Your task to perform on an android device: Open the stopwatch Image 0: 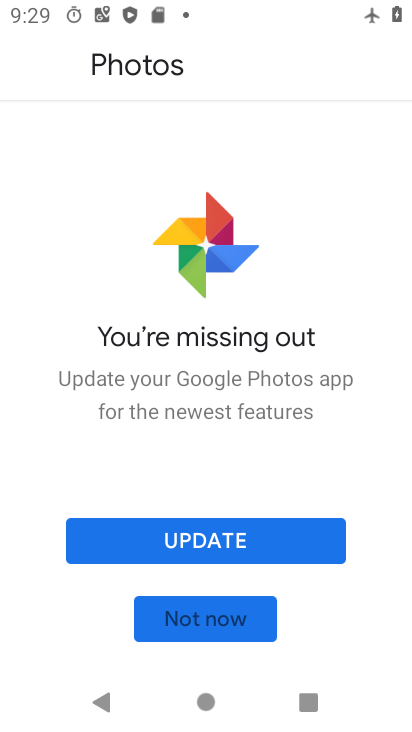
Step 0: press home button
Your task to perform on an android device: Open the stopwatch Image 1: 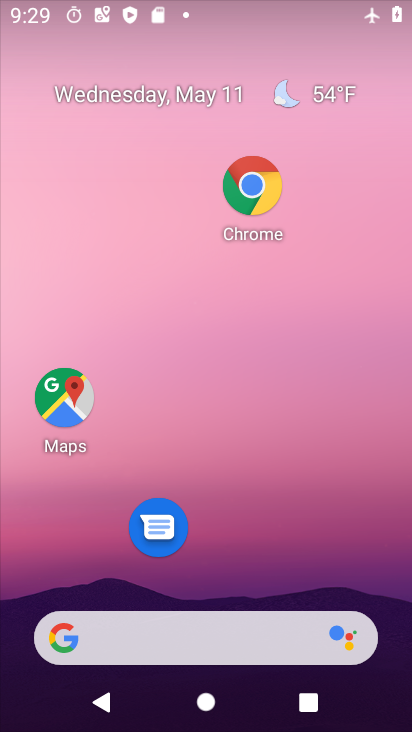
Step 1: drag from (264, 539) to (300, 46)
Your task to perform on an android device: Open the stopwatch Image 2: 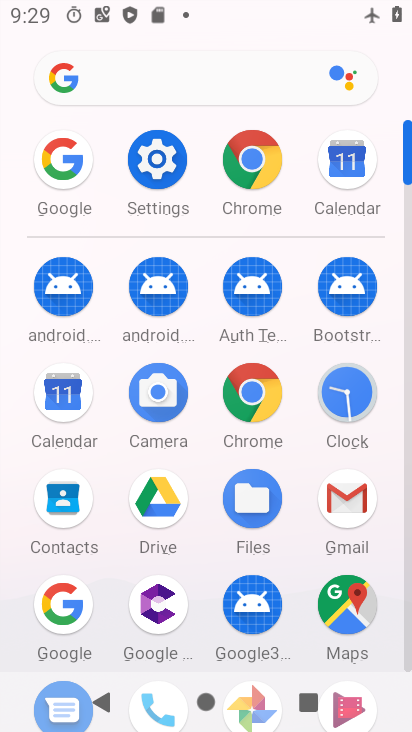
Step 2: click (348, 384)
Your task to perform on an android device: Open the stopwatch Image 3: 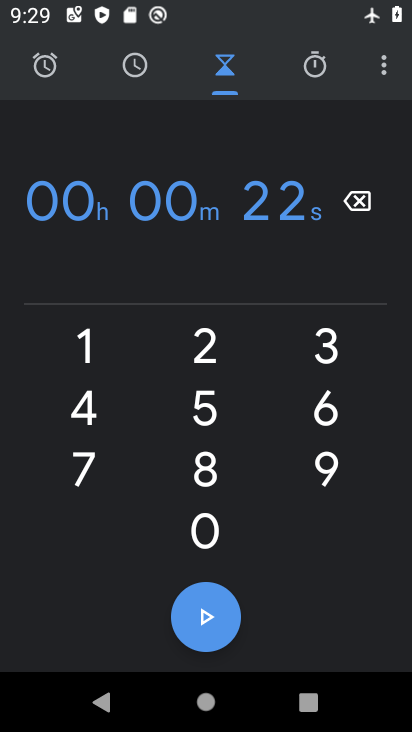
Step 3: click (315, 67)
Your task to perform on an android device: Open the stopwatch Image 4: 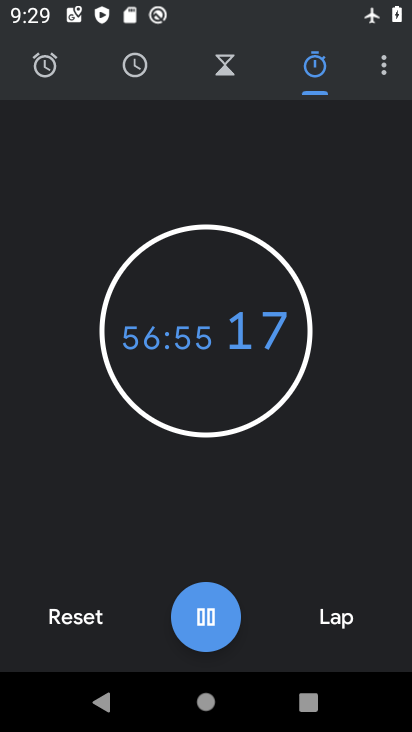
Step 4: click (71, 619)
Your task to perform on an android device: Open the stopwatch Image 5: 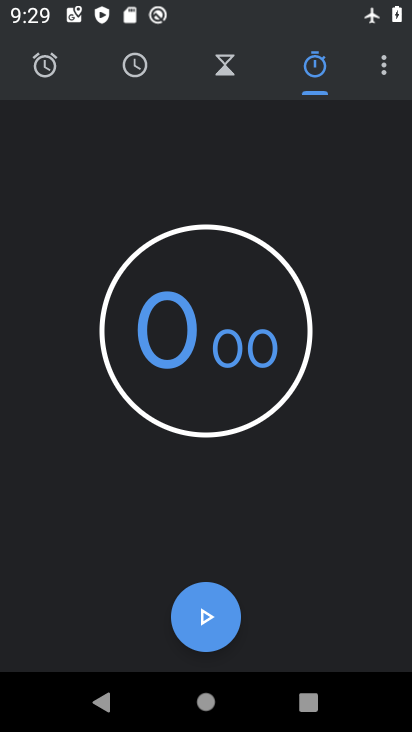
Step 5: click (214, 614)
Your task to perform on an android device: Open the stopwatch Image 6: 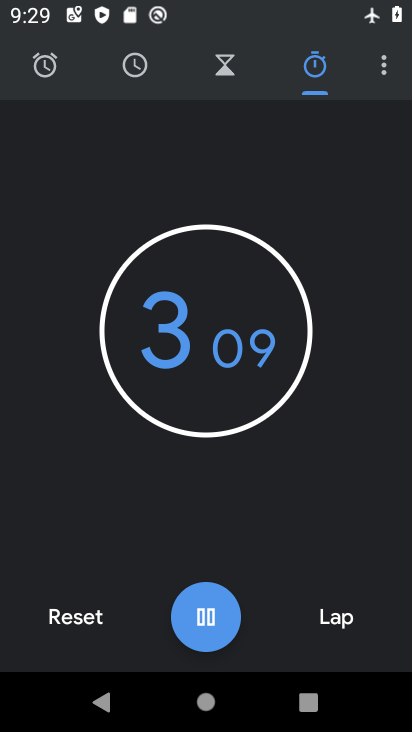
Step 6: task complete